Your task to perform on an android device: Open Google Chrome and click the shortcut for Amazon.com Image 0: 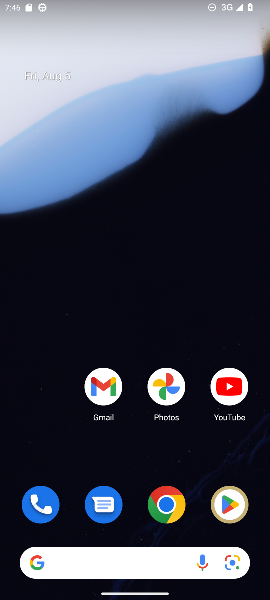
Step 0: click (146, 508)
Your task to perform on an android device: Open Google Chrome and click the shortcut for Amazon.com Image 1: 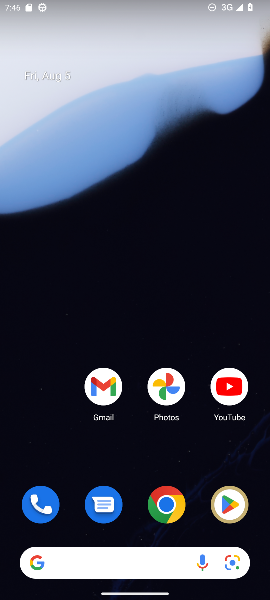
Step 1: click (174, 515)
Your task to perform on an android device: Open Google Chrome and click the shortcut for Amazon.com Image 2: 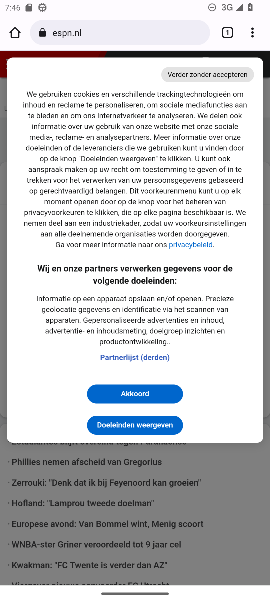
Step 2: click (16, 31)
Your task to perform on an android device: Open Google Chrome and click the shortcut for Amazon.com Image 3: 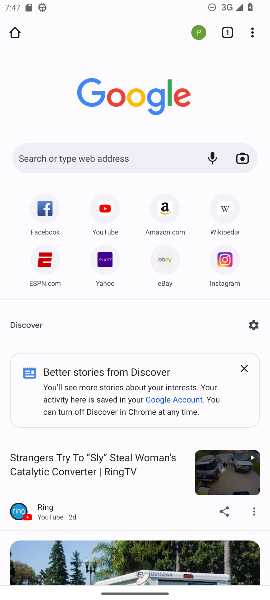
Step 3: click (151, 197)
Your task to perform on an android device: Open Google Chrome and click the shortcut for Amazon.com Image 4: 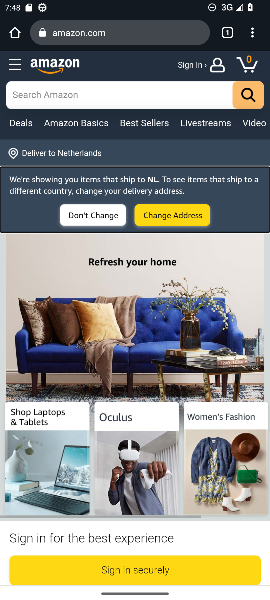
Step 4: task complete